Your task to perform on an android device: Go to wifi settings Image 0: 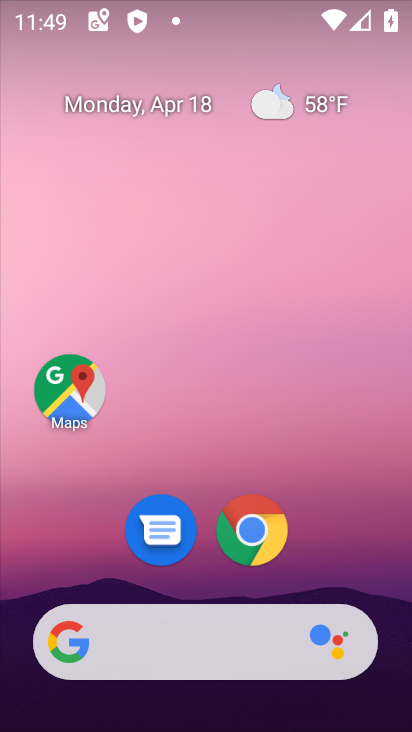
Step 0: drag from (208, 581) to (250, 49)
Your task to perform on an android device: Go to wifi settings Image 1: 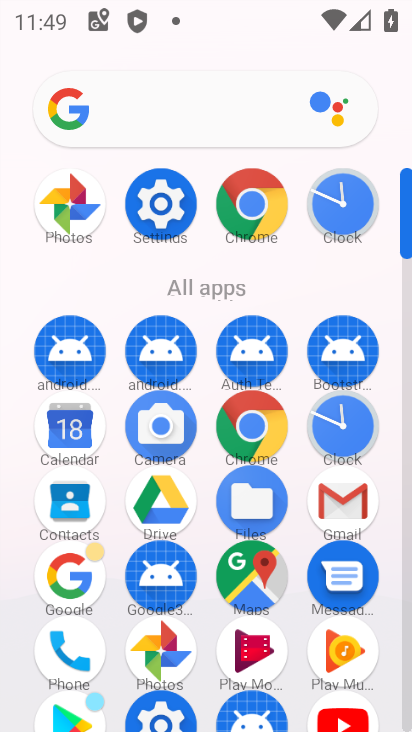
Step 1: click (162, 218)
Your task to perform on an android device: Go to wifi settings Image 2: 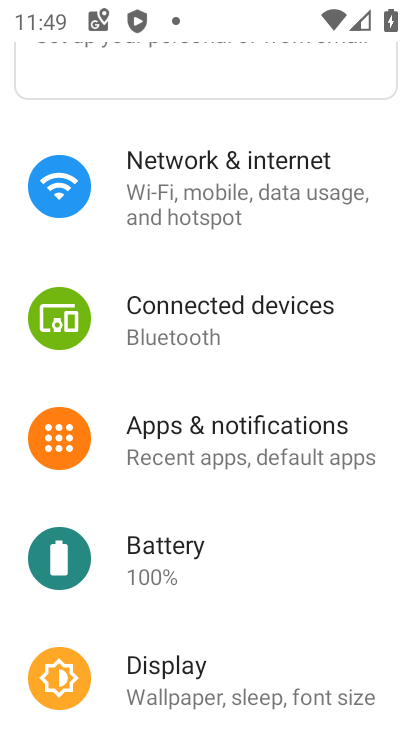
Step 2: click (231, 199)
Your task to perform on an android device: Go to wifi settings Image 3: 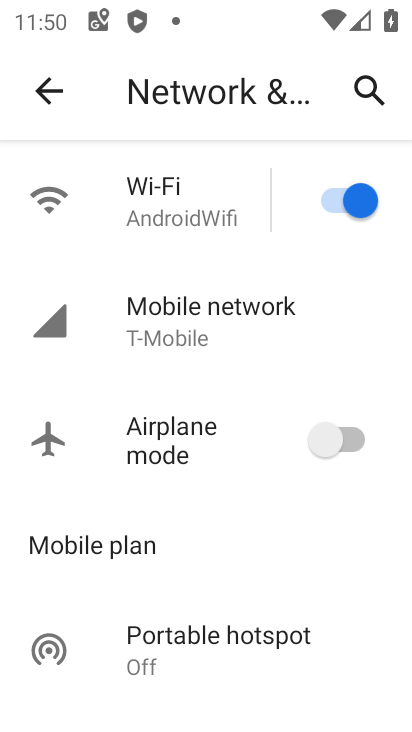
Step 3: click (186, 212)
Your task to perform on an android device: Go to wifi settings Image 4: 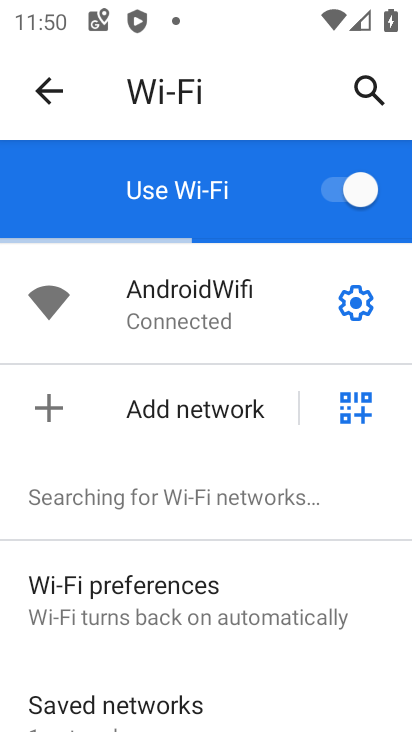
Step 4: task complete